Your task to perform on an android device: toggle javascript in the chrome app Image 0: 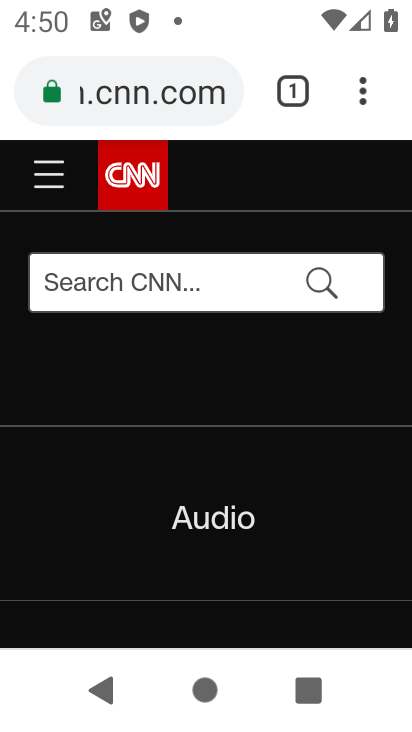
Step 0: press home button
Your task to perform on an android device: toggle javascript in the chrome app Image 1: 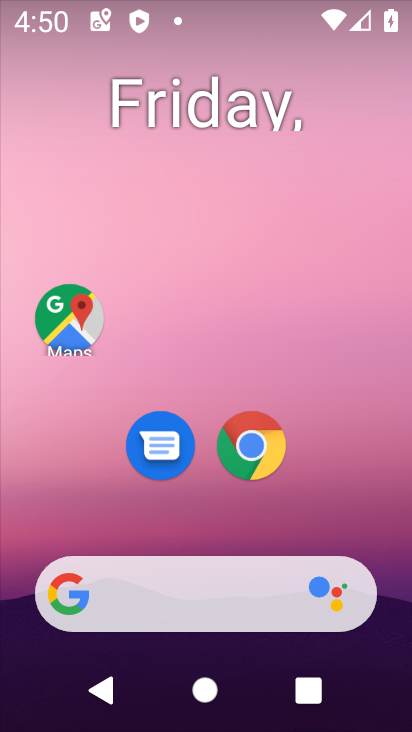
Step 1: click (274, 462)
Your task to perform on an android device: toggle javascript in the chrome app Image 2: 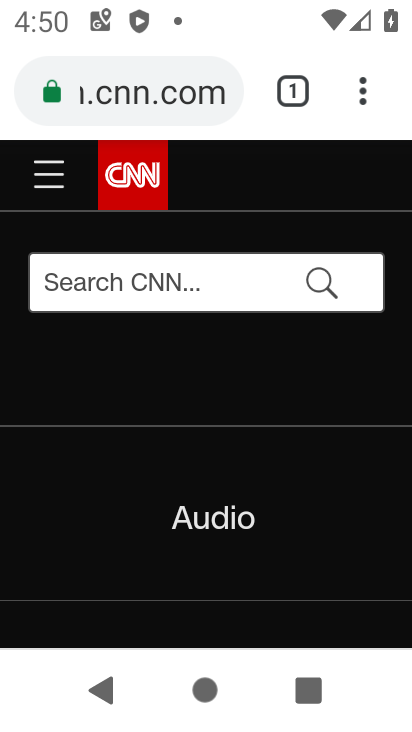
Step 2: click (371, 89)
Your task to perform on an android device: toggle javascript in the chrome app Image 3: 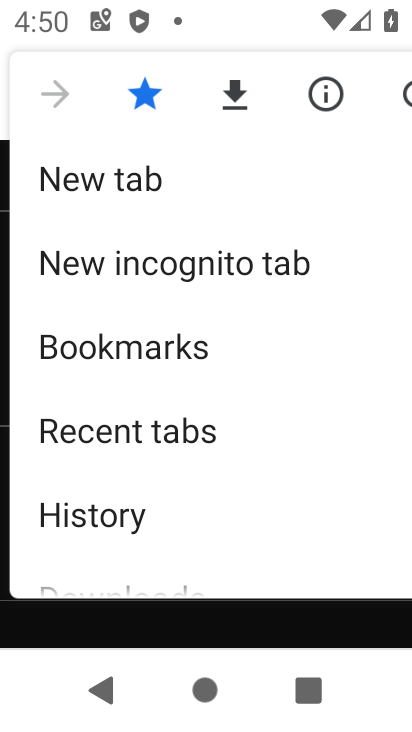
Step 3: drag from (198, 571) to (281, 196)
Your task to perform on an android device: toggle javascript in the chrome app Image 4: 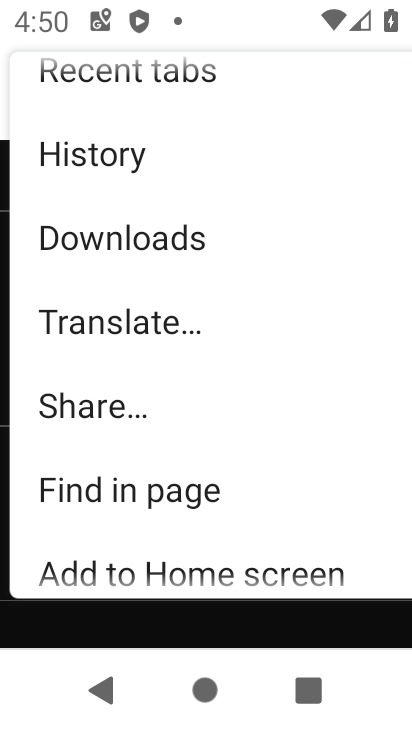
Step 4: drag from (149, 481) to (221, 198)
Your task to perform on an android device: toggle javascript in the chrome app Image 5: 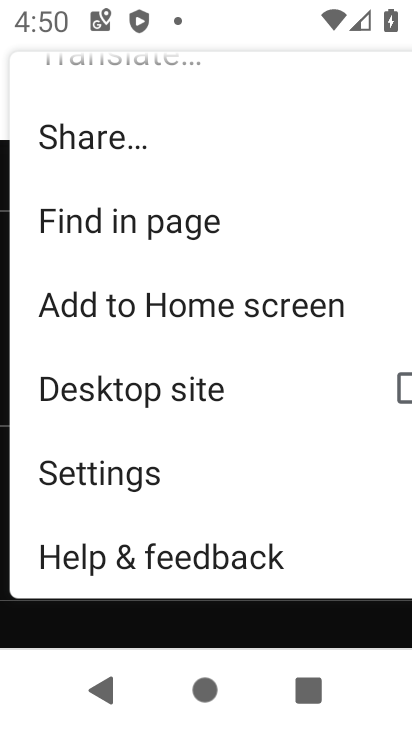
Step 5: click (163, 458)
Your task to perform on an android device: toggle javascript in the chrome app Image 6: 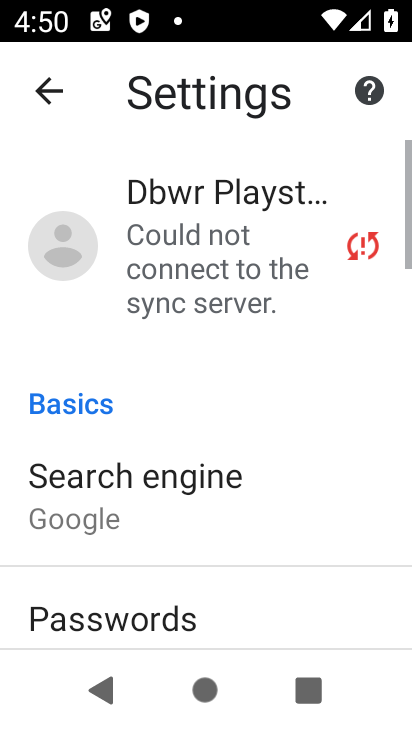
Step 6: drag from (163, 458) to (206, 305)
Your task to perform on an android device: toggle javascript in the chrome app Image 7: 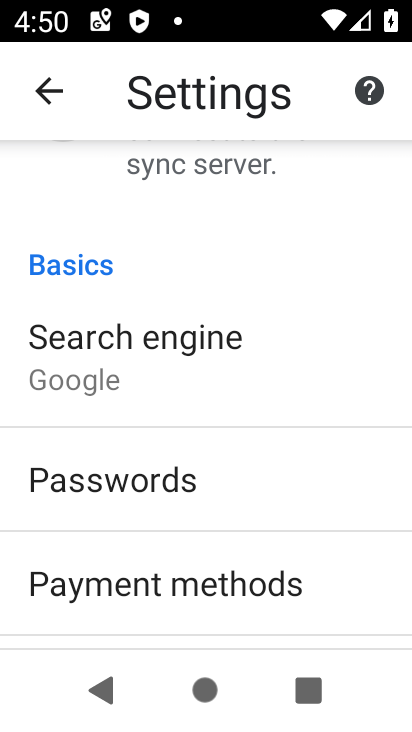
Step 7: drag from (240, 554) to (270, 193)
Your task to perform on an android device: toggle javascript in the chrome app Image 8: 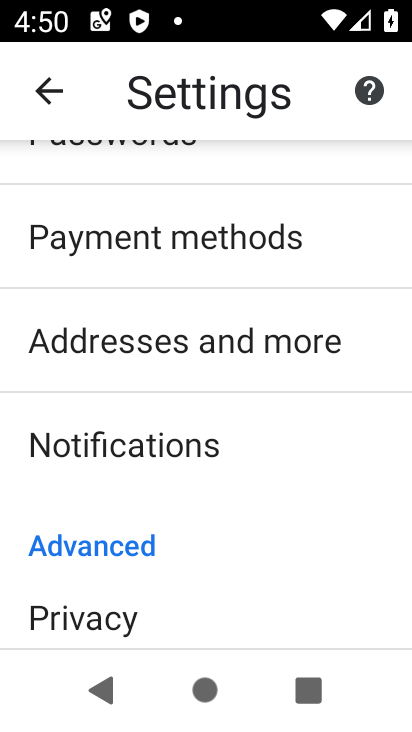
Step 8: drag from (193, 549) to (263, 228)
Your task to perform on an android device: toggle javascript in the chrome app Image 9: 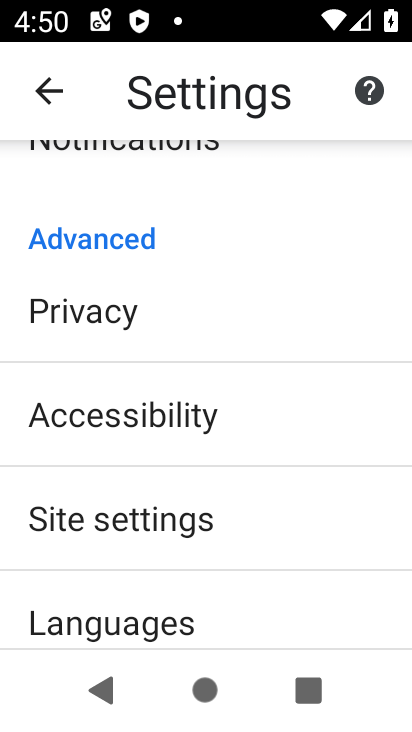
Step 9: click (195, 541)
Your task to perform on an android device: toggle javascript in the chrome app Image 10: 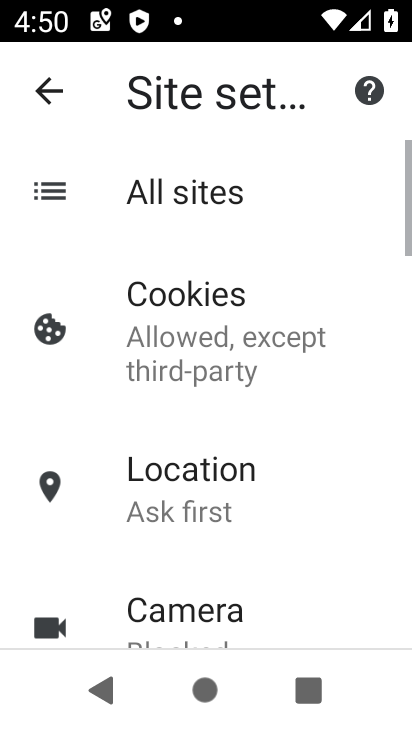
Step 10: drag from (176, 606) to (213, 229)
Your task to perform on an android device: toggle javascript in the chrome app Image 11: 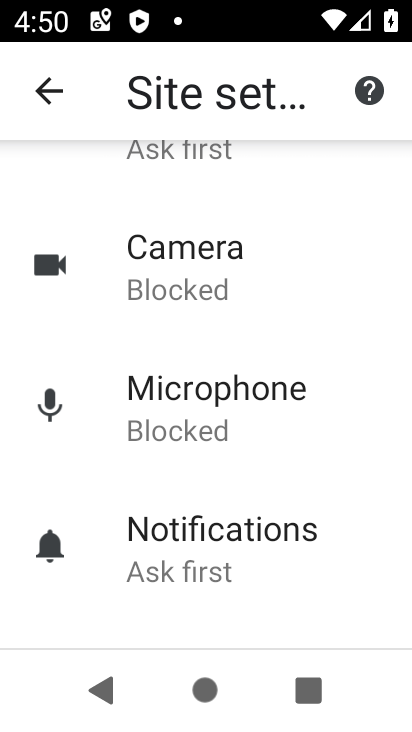
Step 11: drag from (217, 596) to (244, 421)
Your task to perform on an android device: toggle javascript in the chrome app Image 12: 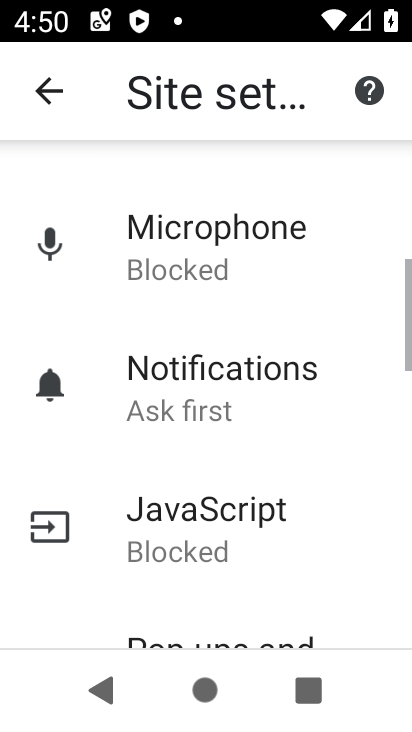
Step 12: click (244, 421)
Your task to perform on an android device: toggle javascript in the chrome app Image 13: 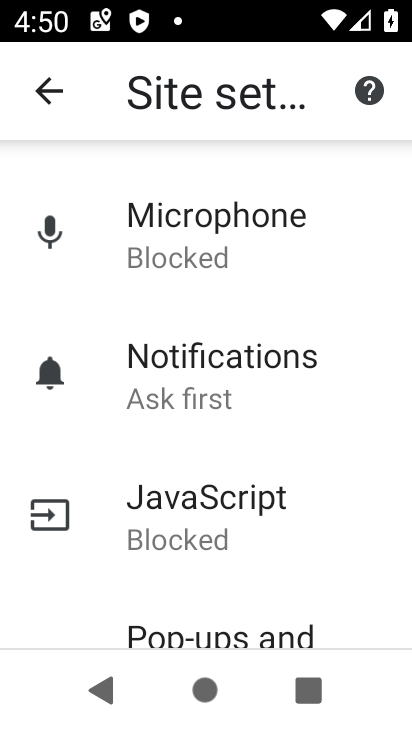
Step 13: click (251, 538)
Your task to perform on an android device: toggle javascript in the chrome app Image 14: 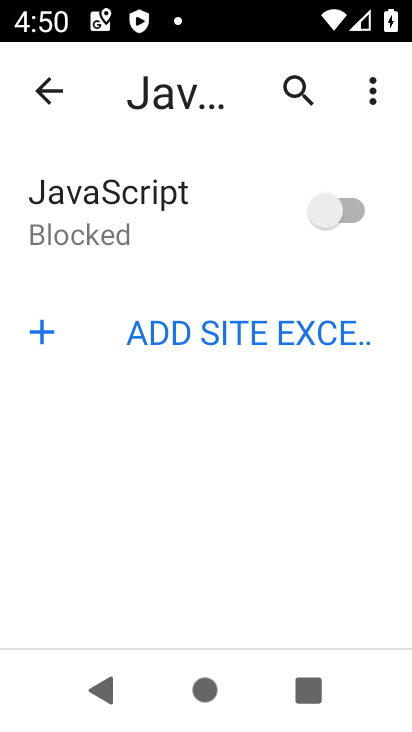
Step 14: click (326, 219)
Your task to perform on an android device: toggle javascript in the chrome app Image 15: 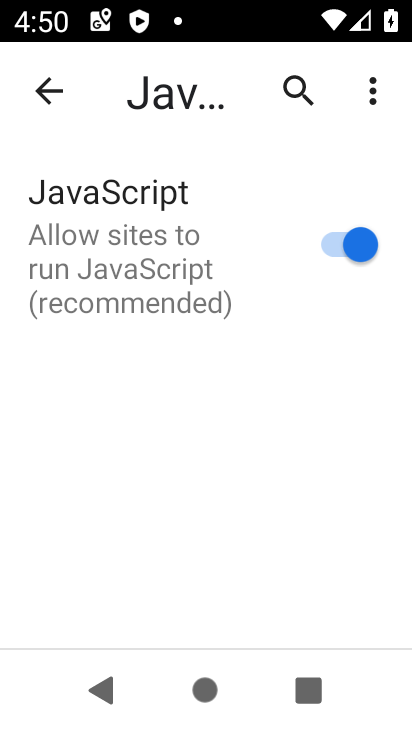
Step 15: task complete